Your task to perform on an android device: visit the assistant section in the google photos Image 0: 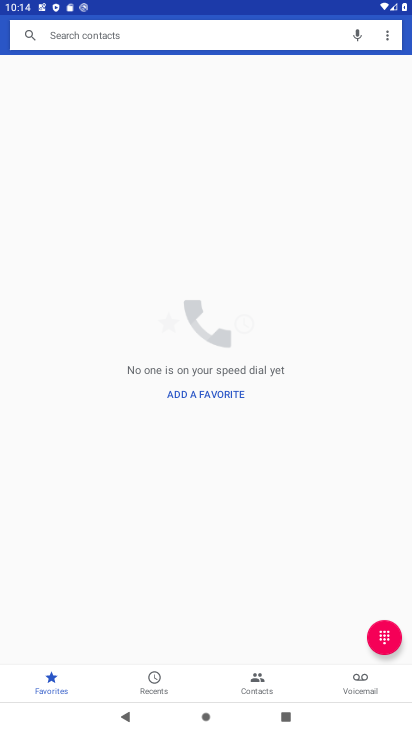
Step 0: press home button
Your task to perform on an android device: visit the assistant section in the google photos Image 1: 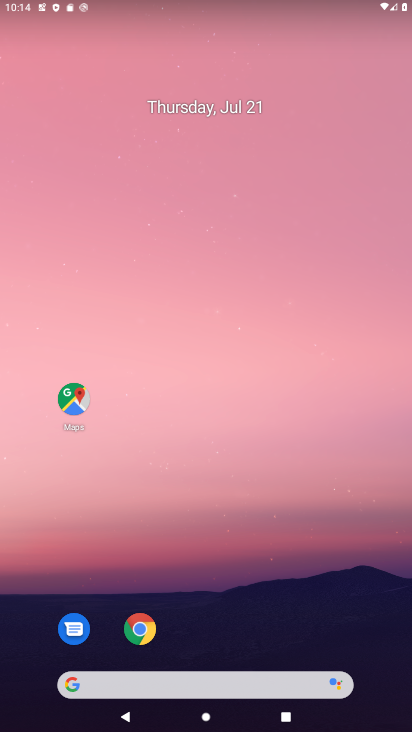
Step 1: drag from (261, 609) to (175, 121)
Your task to perform on an android device: visit the assistant section in the google photos Image 2: 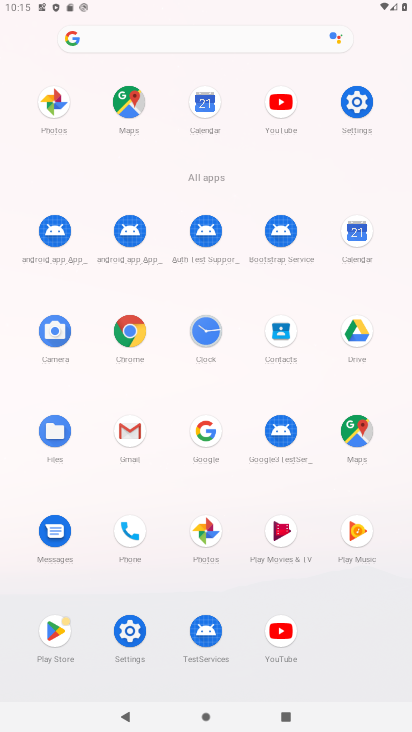
Step 2: click (204, 533)
Your task to perform on an android device: visit the assistant section in the google photos Image 3: 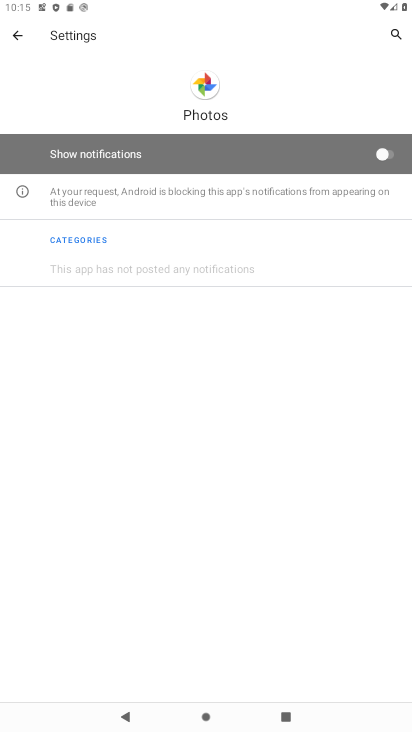
Step 3: click (18, 33)
Your task to perform on an android device: visit the assistant section in the google photos Image 4: 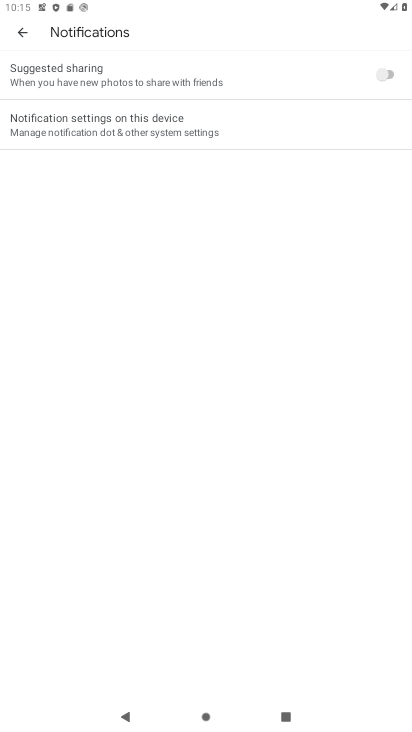
Step 4: click (18, 33)
Your task to perform on an android device: visit the assistant section in the google photos Image 5: 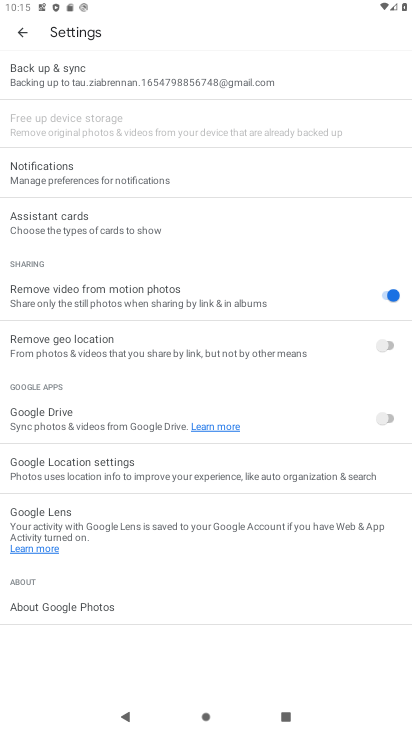
Step 5: click (18, 33)
Your task to perform on an android device: visit the assistant section in the google photos Image 6: 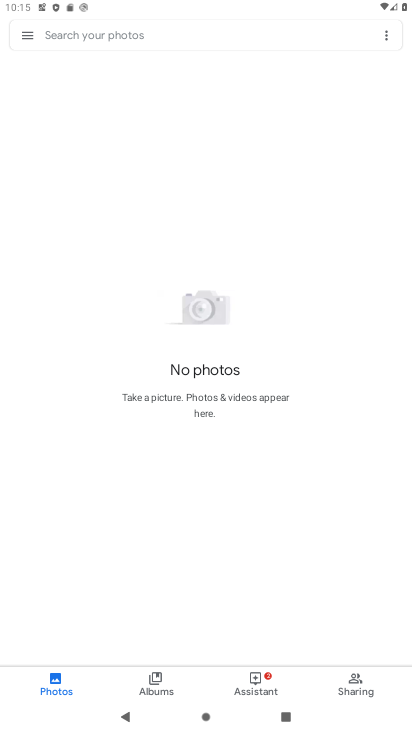
Step 6: click (256, 677)
Your task to perform on an android device: visit the assistant section in the google photos Image 7: 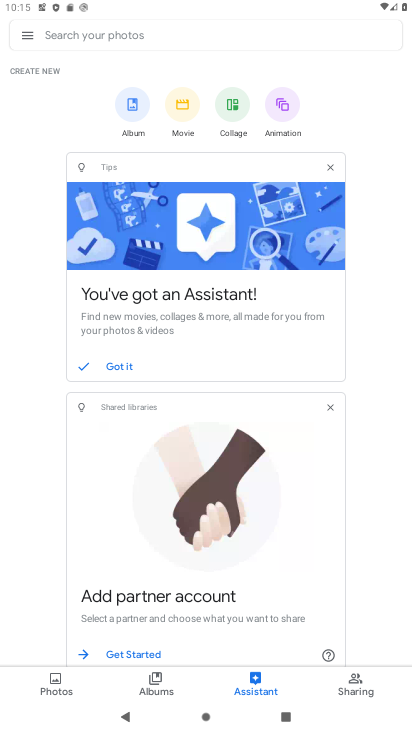
Step 7: task complete